Your task to perform on an android device: turn off wifi Image 0: 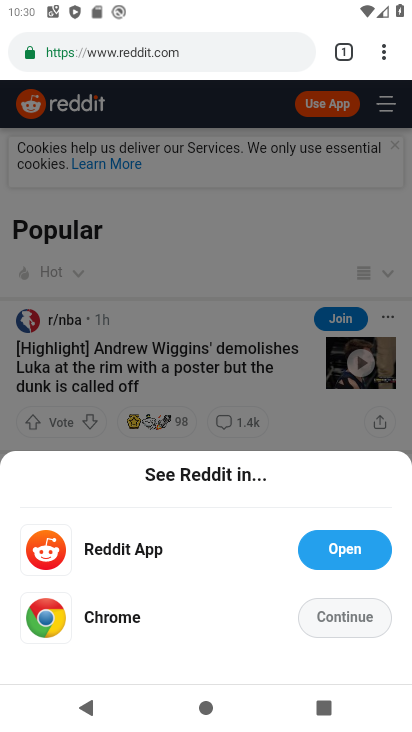
Step 0: drag from (392, 621) to (377, 444)
Your task to perform on an android device: turn off wifi Image 1: 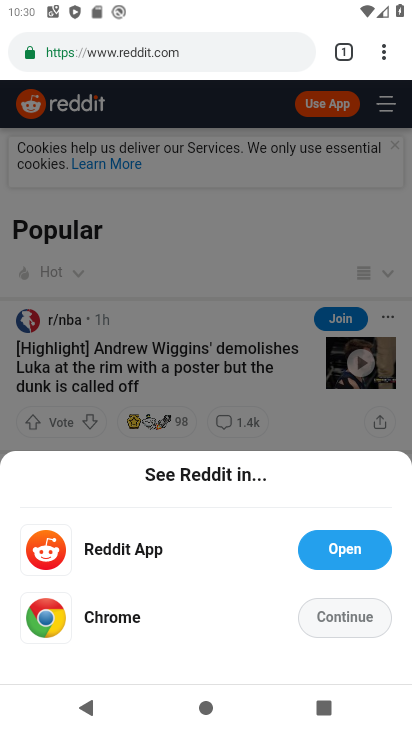
Step 1: press home button
Your task to perform on an android device: turn off wifi Image 2: 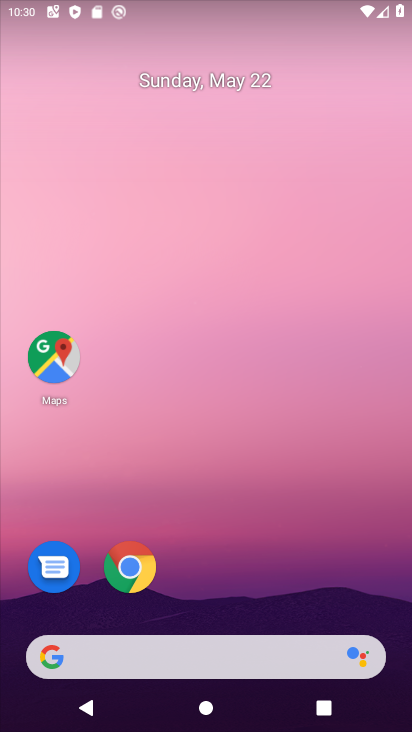
Step 2: drag from (377, 608) to (338, 269)
Your task to perform on an android device: turn off wifi Image 3: 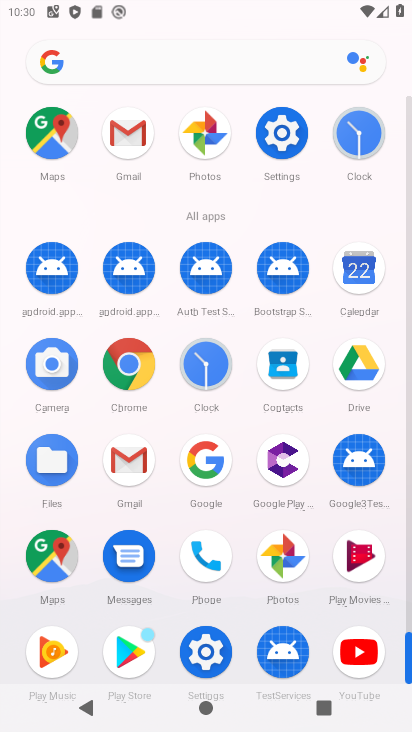
Step 3: click (206, 649)
Your task to perform on an android device: turn off wifi Image 4: 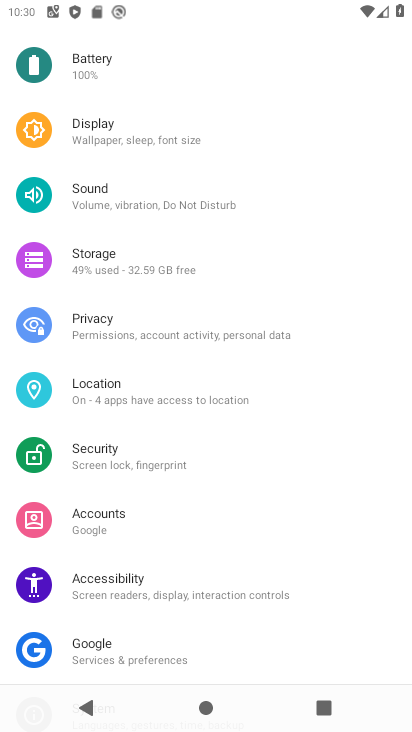
Step 4: drag from (231, 184) to (253, 578)
Your task to perform on an android device: turn off wifi Image 5: 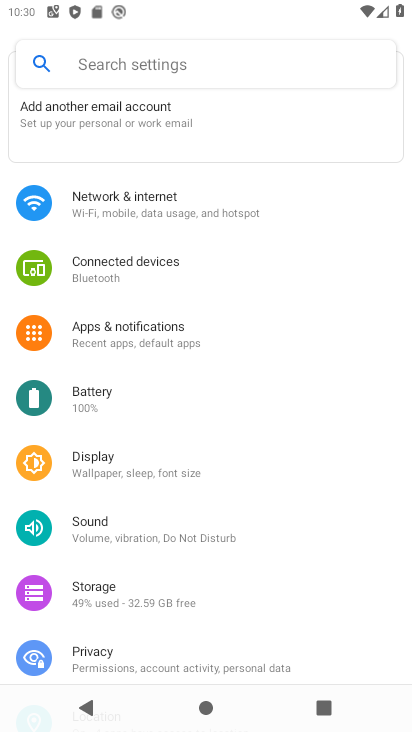
Step 5: click (108, 201)
Your task to perform on an android device: turn off wifi Image 6: 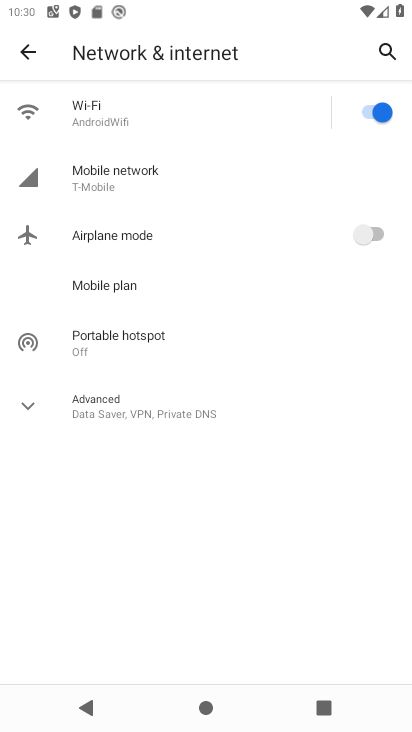
Step 6: click (363, 113)
Your task to perform on an android device: turn off wifi Image 7: 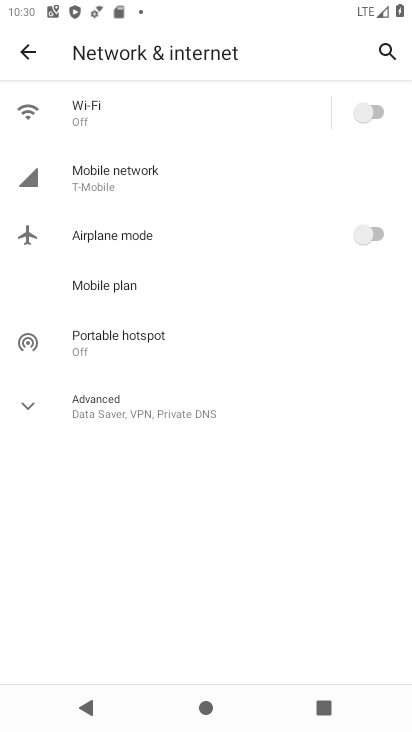
Step 7: task complete